Your task to perform on an android device: turn on data saver in the chrome app Image 0: 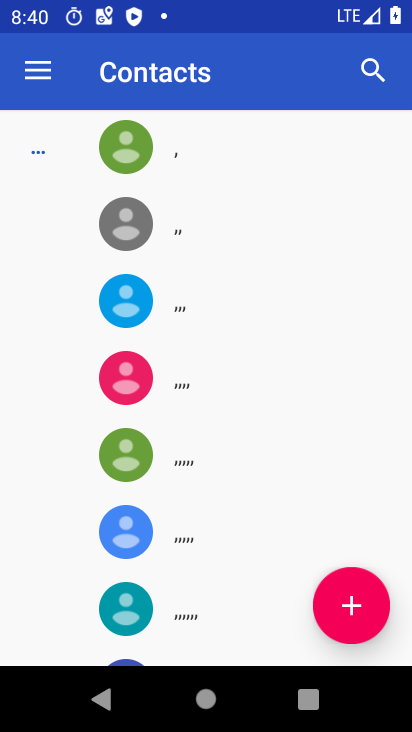
Step 0: press home button
Your task to perform on an android device: turn on data saver in the chrome app Image 1: 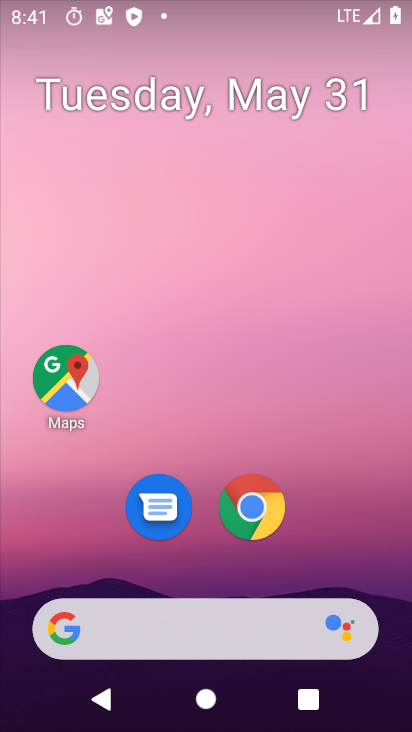
Step 1: click (252, 503)
Your task to perform on an android device: turn on data saver in the chrome app Image 2: 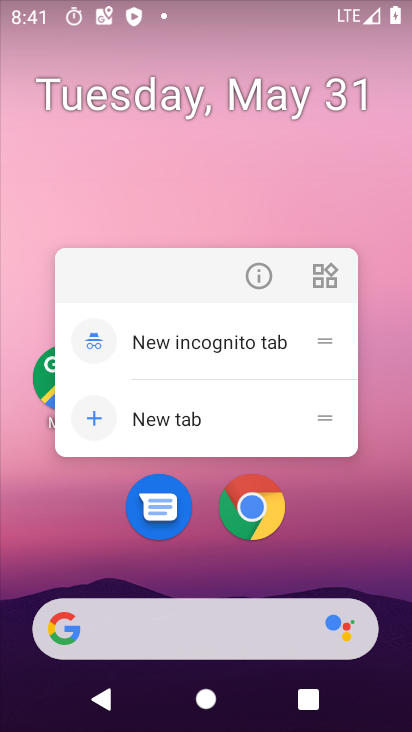
Step 2: click (252, 503)
Your task to perform on an android device: turn on data saver in the chrome app Image 3: 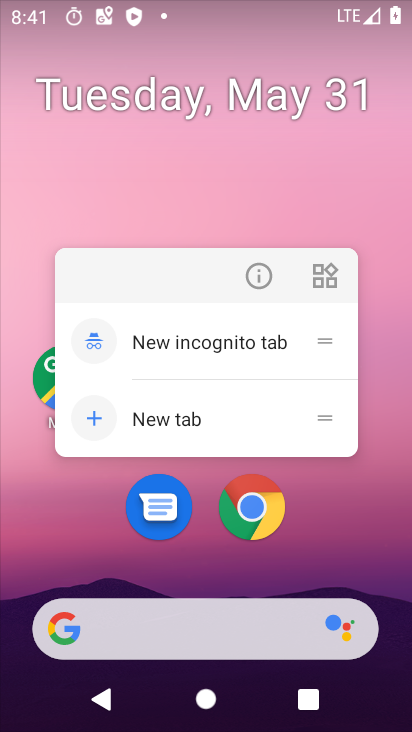
Step 3: click (260, 507)
Your task to perform on an android device: turn on data saver in the chrome app Image 4: 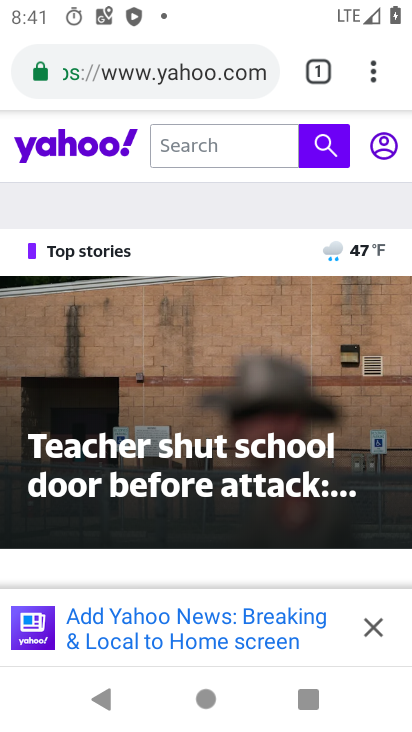
Step 4: click (374, 62)
Your task to perform on an android device: turn on data saver in the chrome app Image 5: 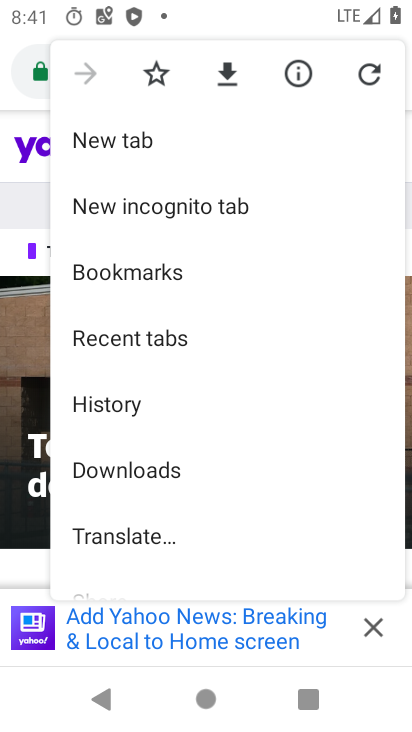
Step 5: drag from (9, 537) to (255, 177)
Your task to perform on an android device: turn on data saver in the chrome app Image 6: 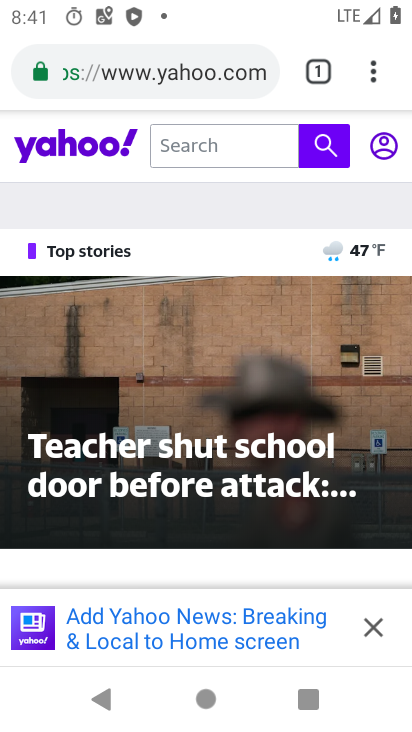
Step 6: click (379, 64)
Your task to perform on an android device: turn on data saver in the chrome app Image 7: 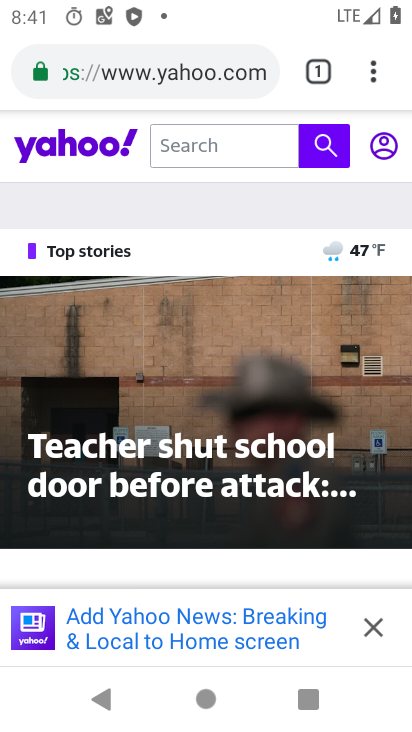
Step 7: click (385, 62)
Your task to perform on an android device: turn on data saver in the chrome app Image 8: 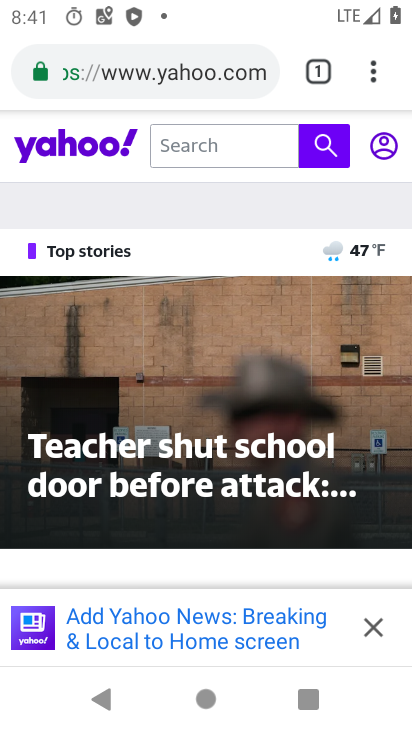
Step 8: click (370, 80)
Your task to perform on an android device: turn on data saver in the chrome app Image 9: 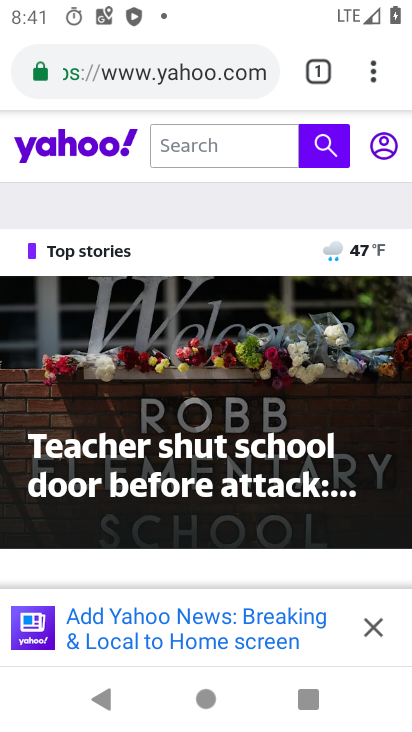
Step 9: click (376, 68)
Your task to perform on an android device: turn on data saver in the chrome app Image 10: 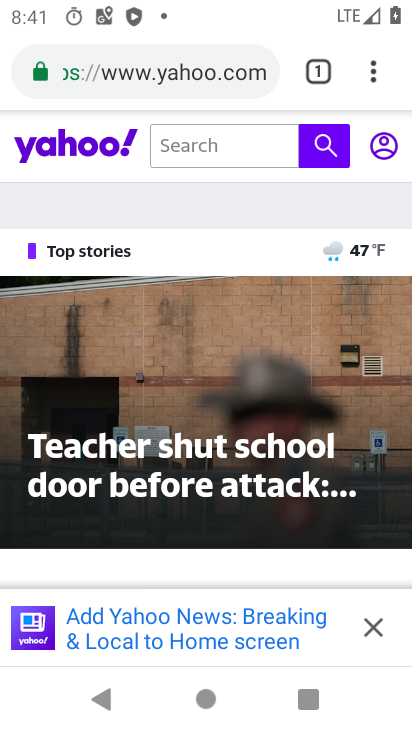
Step 10: click (381, 71)
Your task to perform on an android device: turn on data saver in the chrome app Image 11: 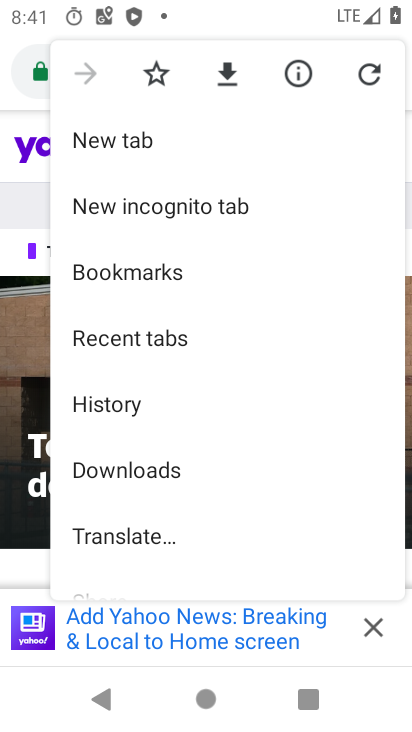
Step 11: drag from (120, 508) to (243, 193)
Your task to perform on an android device: turn on data saver in the chrome app Image 12: 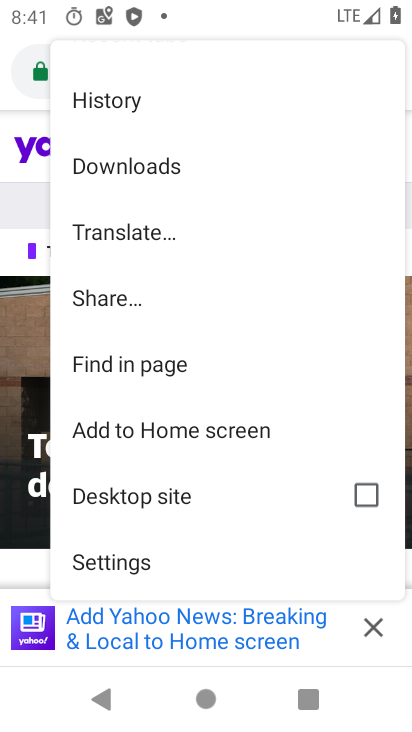
Step 12: click (95, 569)
Your task to perform on an android device: turn on data saver in the chrome app Image 13: 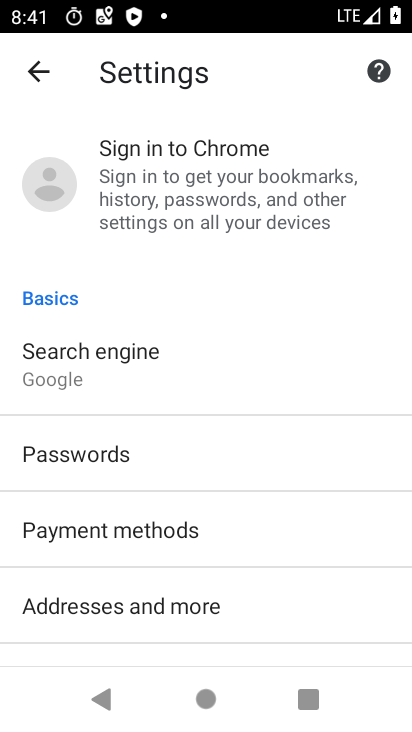
Step 13: drag from (8, 546) to (199, 135)
Your task to perform on an android device: turn on data saver in the chrome app Image 14: 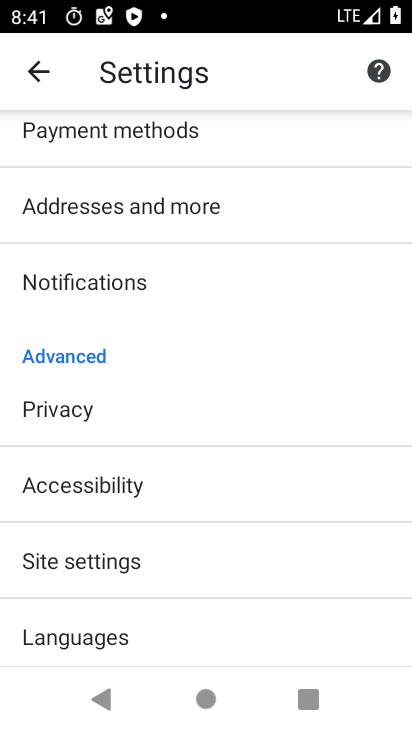
Step 14: drag from (19, 556) to (198, 226)
Your task to perform on an android device: turn on data saver in the chrome app Image 15: 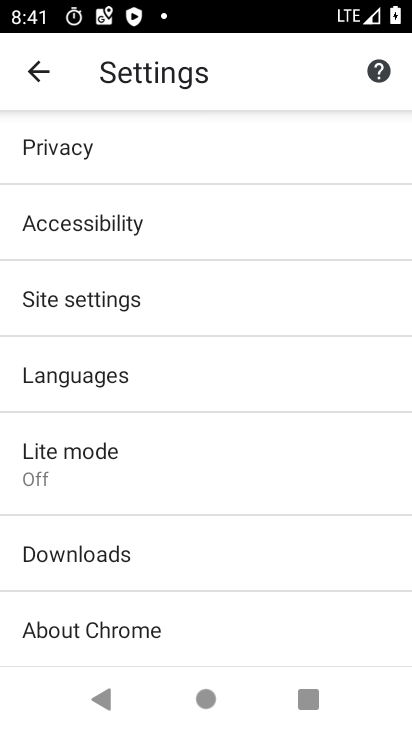
Step 15: click (96, 463)
Your task to perform on an android device: turn on data saver in the chrome app Image 16: 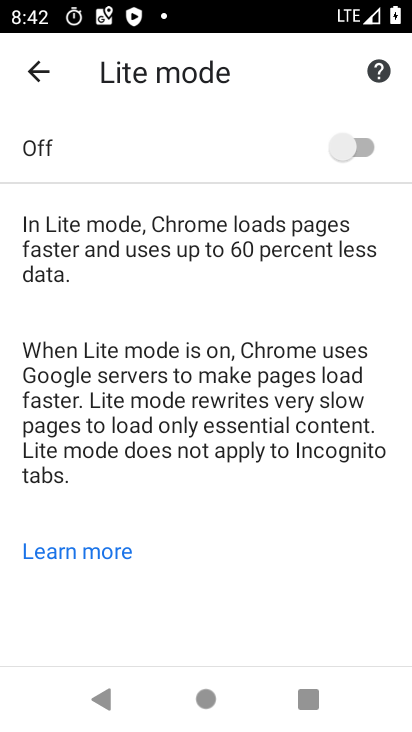
Step 16: click (350, 155)
Your task to perform on an android device: turn on data saver in the chrome app Image 17: 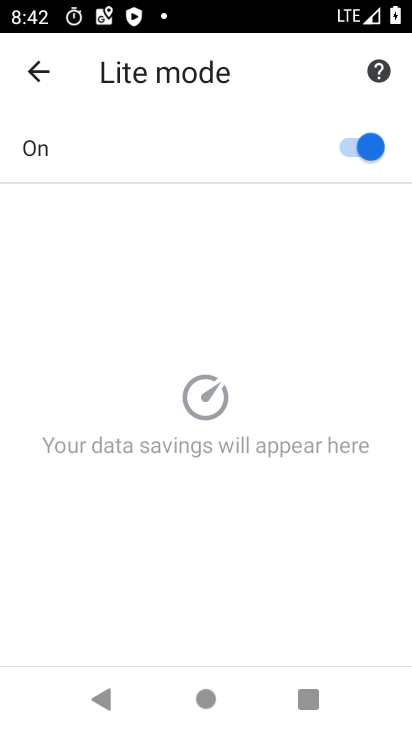
Step 17: task complete